Your task to perform on an android device: turn on showing notifications on the lock screen Image 0: 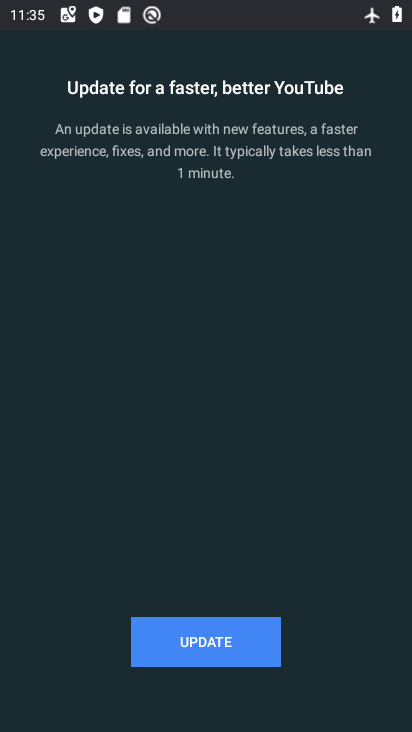
Step 0: press back button
Your task to perform on an android device: turn on showing notifications on the lock screen Image 1: 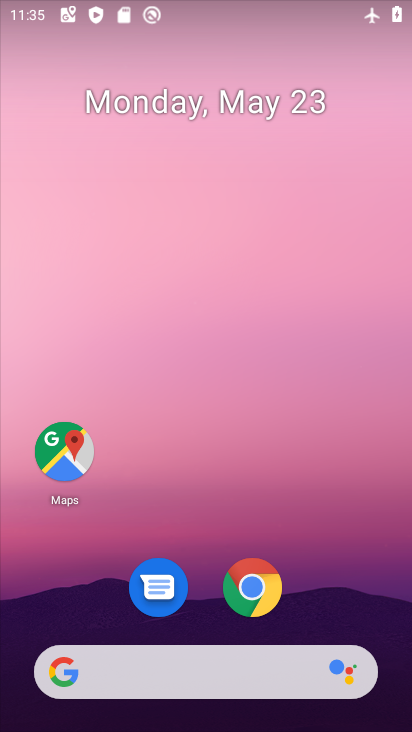
Step 1: drag from (390, 618) to (326, 167)
Your task to perform on an android device: turn on showing notifications on the lock screen Image 2: 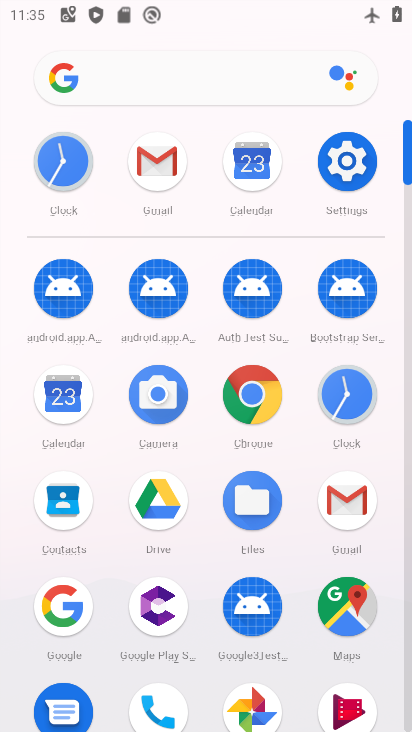
Step 2: click (353, 157)
Your task to perform on an android device: turn on showing notifications on the lock screen Image 3: 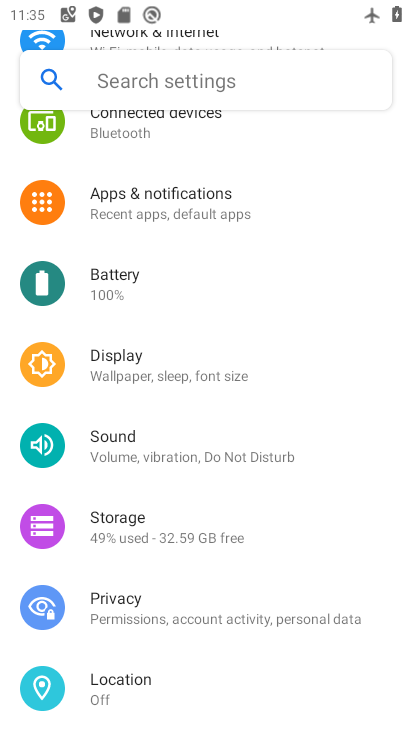
Step 3: click (226, 198)
Your task to perform on an android device: turn on showing notifications on the lock screen Image 4: 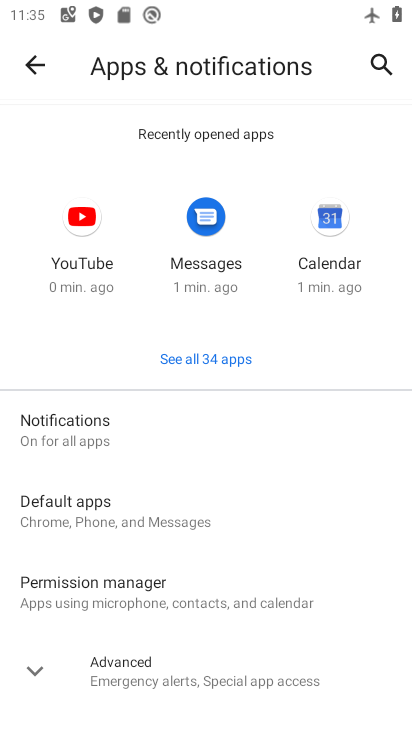
Step 4: click (234, 423)
Your task to perform on an android device: turn on showing notifications on the lock screen Image 5: 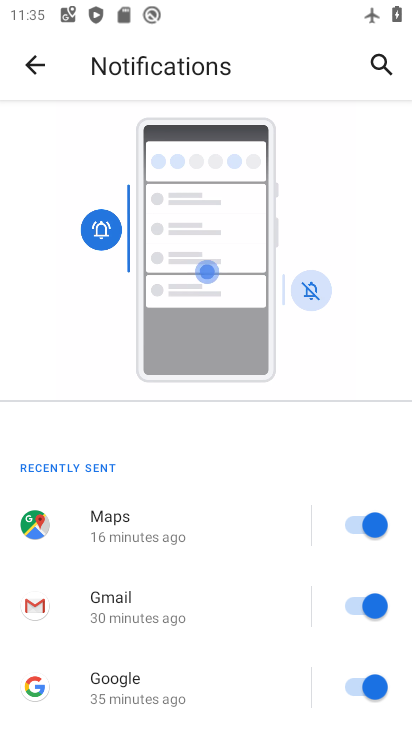
Step 5: drag from (225, 637) to (207, 300)
Your task to perform on an android device: turn on showing notifications on the lock screen Image 6: 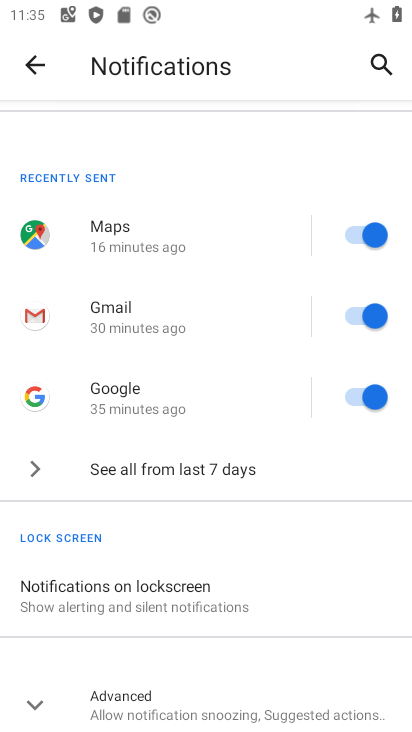
Step 6: click (232, 610)
Your task to perform on an android device: turn on showing notifications on the lock screen Image 7: 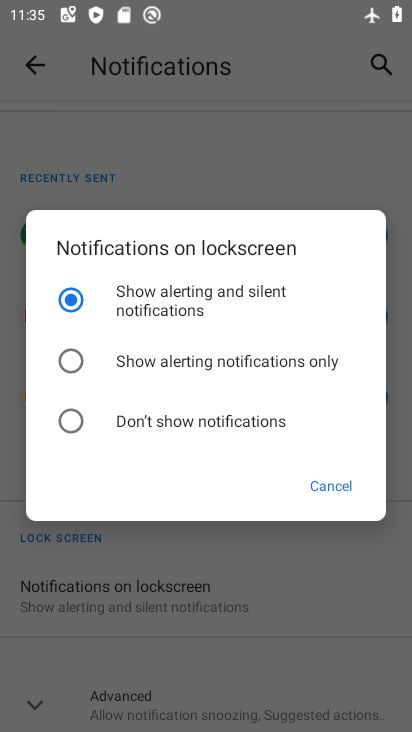
Step 7: task complete